Your task to perform on an android device: Go to display settings Image 0: 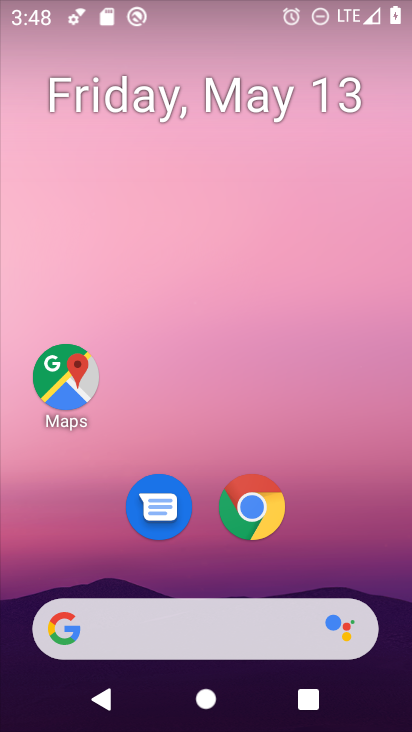
Step 0: drag from (367, 549) to (307, 169)
Your task to perform on an android device: Go to display settings Image 1: 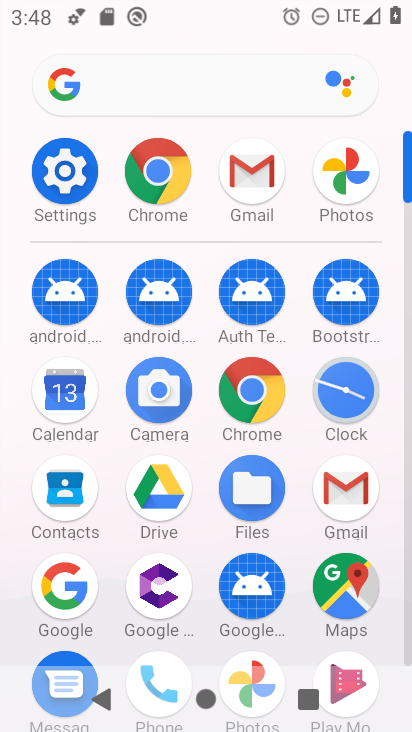
Step 1: click (70, 183)
Your task to perform on an android device: Go to display settings Image 2: 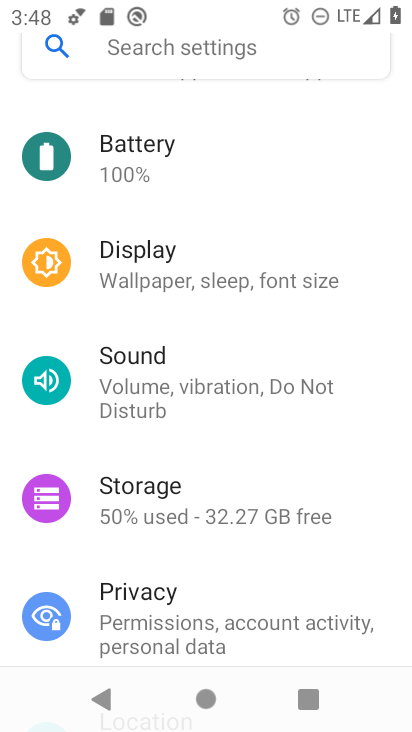
Step 2: click (215, 271)
Your task to perform on an android device: Go to display settings Image 3: 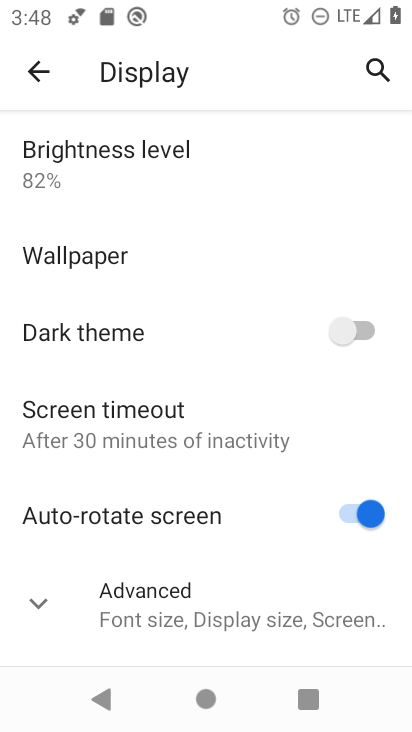
Step 3: task complete